Your task to perform on an android device: Search for Mexican restaurants on Maps Image 0: 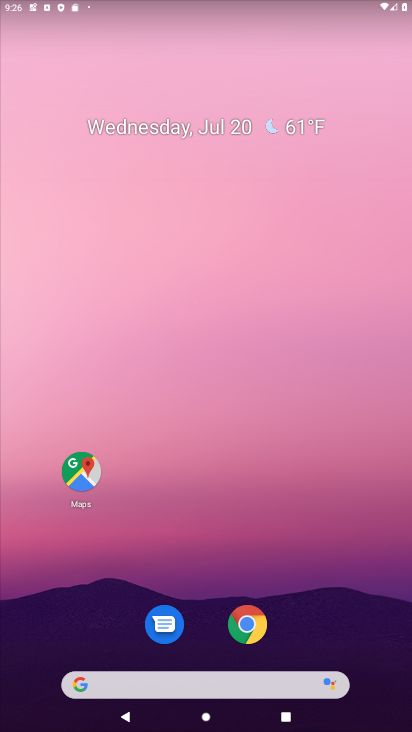
Step 0: click (83, 450)
Your task to perform on an android device: Search for Mexican restaurants on Maps Image 1: 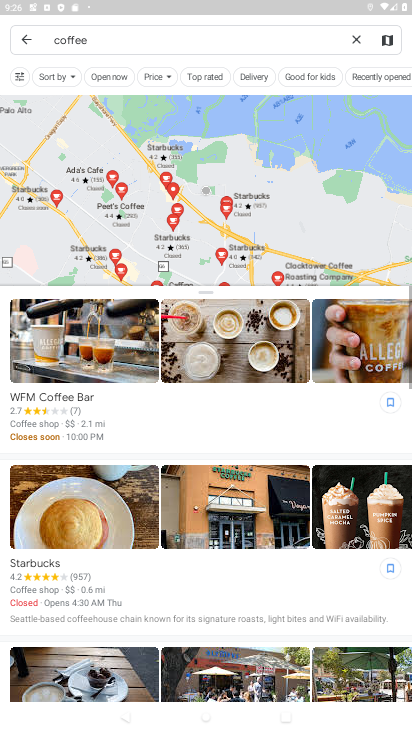
Step 1: click (213, 33)
Your task to perform on an android device: Search for Mexican restaurants on Maps Image 2: 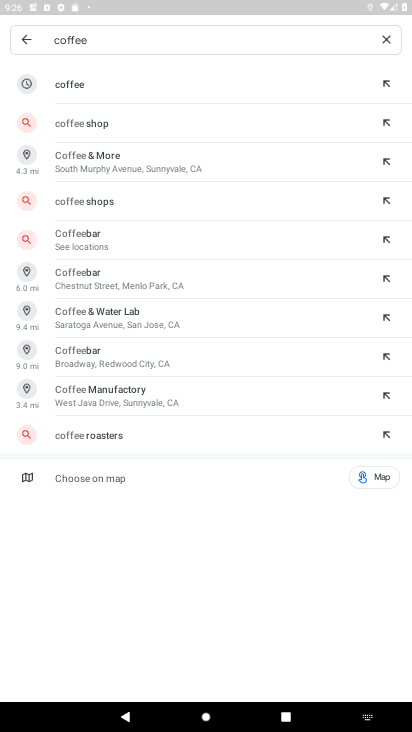
Step 2: click (381, 31)
Your task to perform on an android device: Search for Mexican restaurants on Maps Image 3: 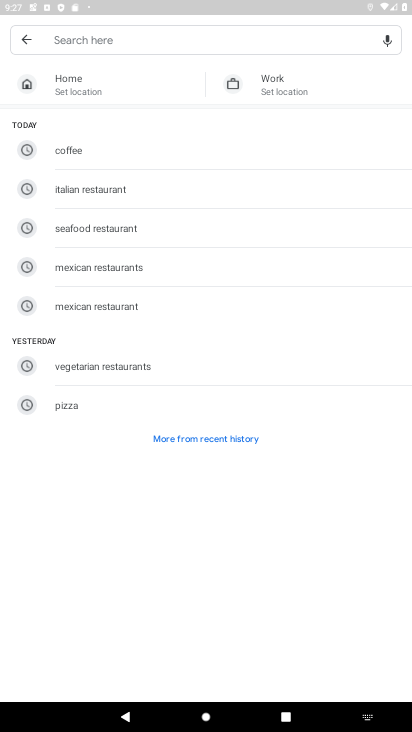
Step 3: click (113, 43)
Your task to perform on an android device: Search for Mexican restaurants on Maps Image 4: 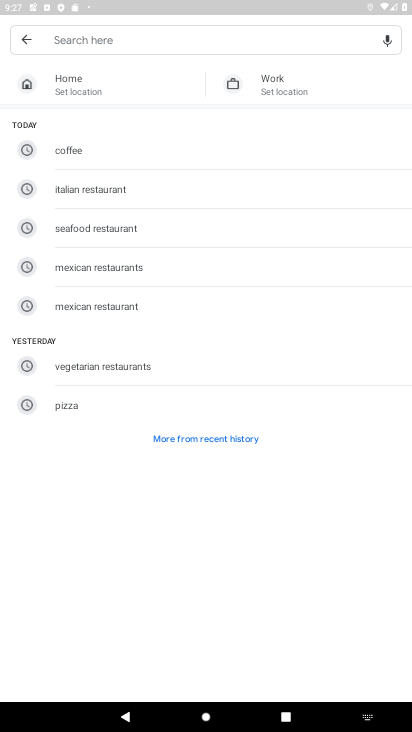
Step 4: click (67, 269)
Your task to perform on an android device: Search for Mexican restaurants on Maps Image 5: 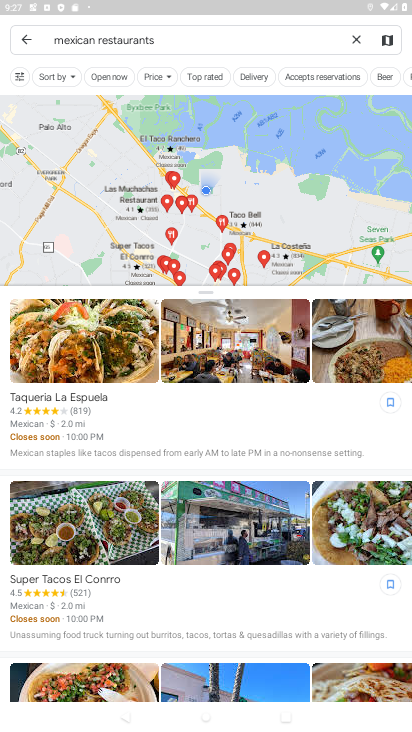
Step 5: task complete